Your task to perform on an android device: show emergency info Image 0: 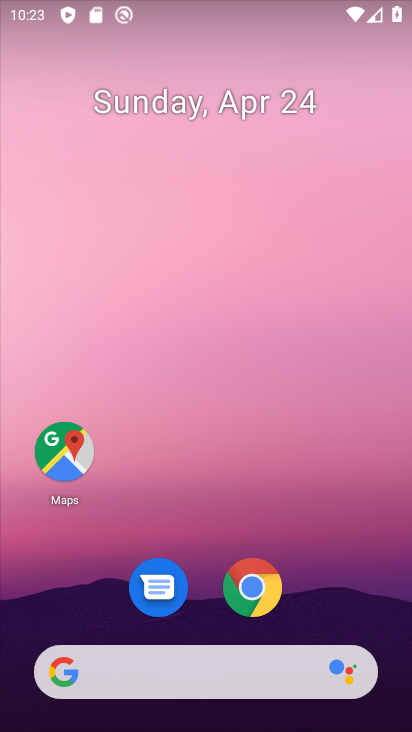
Step 0: drag from (356, 560) to (286, 45)
Your task to perform on an android device: show emergency info Image 1: 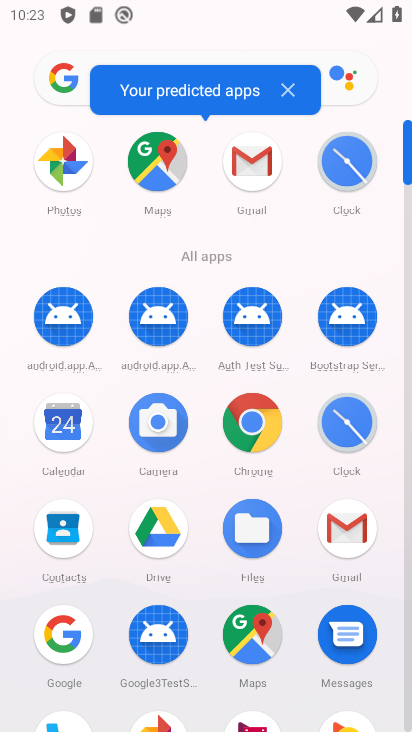
Step 1: drag from (372, 485) to (343, 192)
Your task to perform on an android device: show emergency info Image 2: 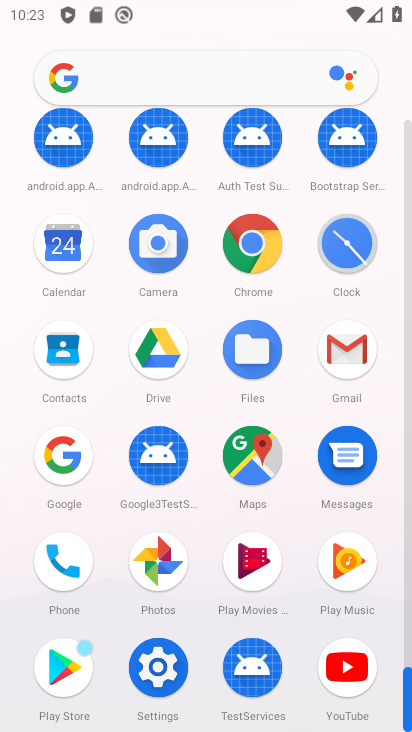
Step 2: click (153, 655)
Your task to perform on an android device: show emergency info Image 3: 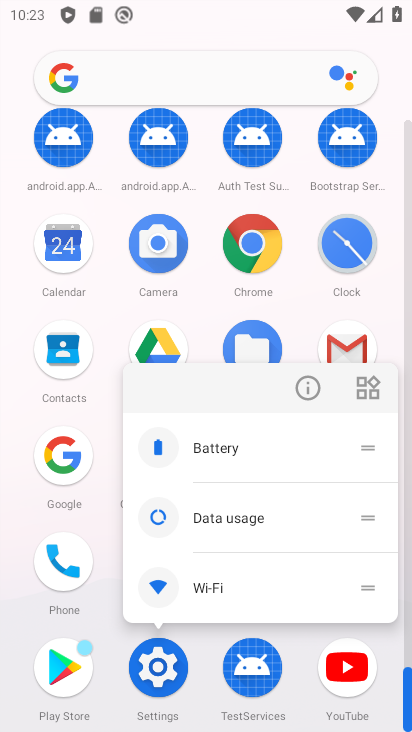
Step 3: click (169, 701)
Your task to perform on an android device: show emergency info Image 4: 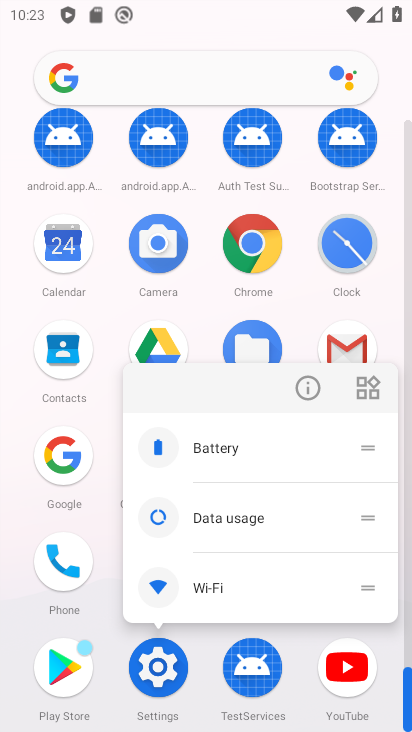
Step 4: click (158, 677)
Your task to perform on an android device: show emergency info Image 5: 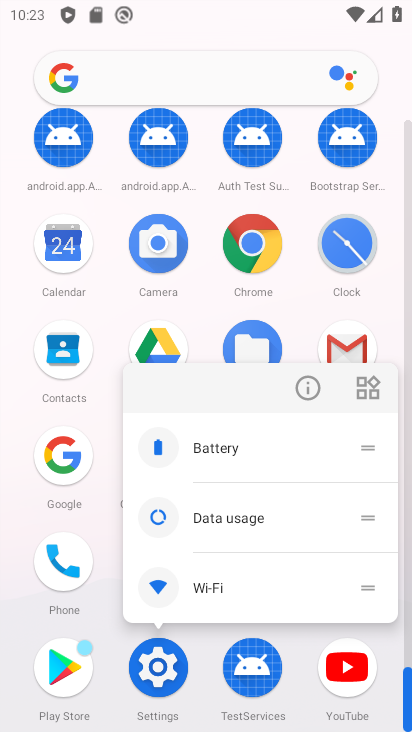
Step 5: click (158, 677)
Your task to perform on an android device: show emergency info Image 6: 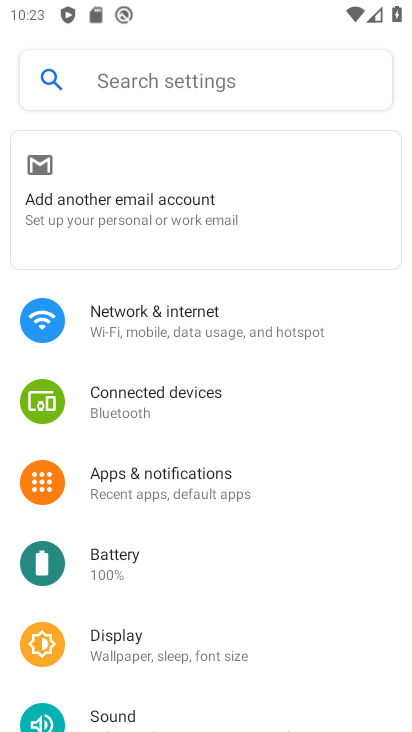
Step 6: drag from (343, 652) to (340, 284)
Your task to perform on an android device: show emergency info Image 7: 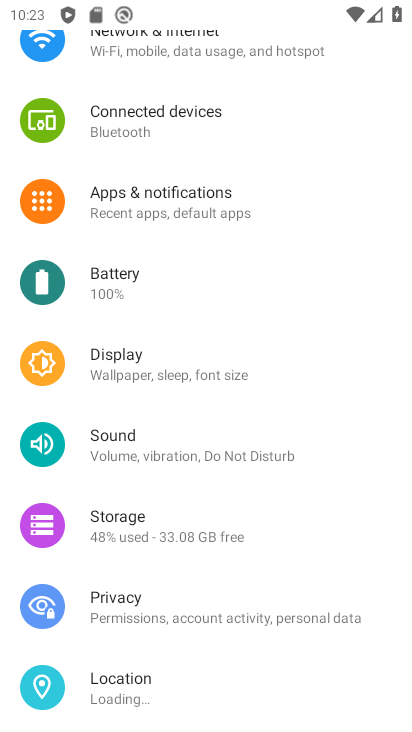
Step 7: drag from (373, 630) to (370, 239)
Your task to perform on an android device: show emergency info Image 8: 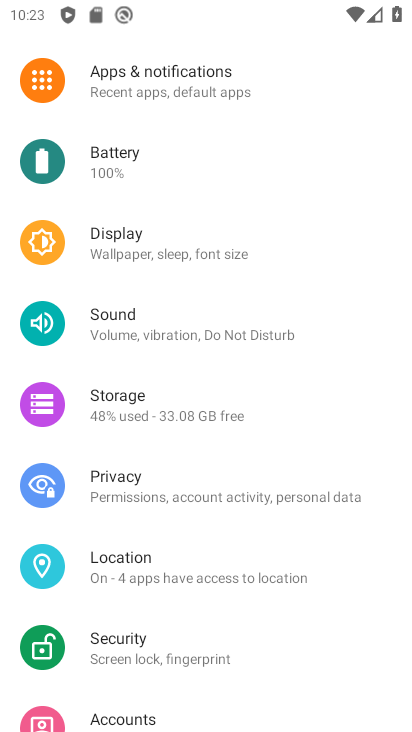
Step 8: drag from (342, 602) to (355, 296)
Your task to perform on an android device: show emergency info Image 9: 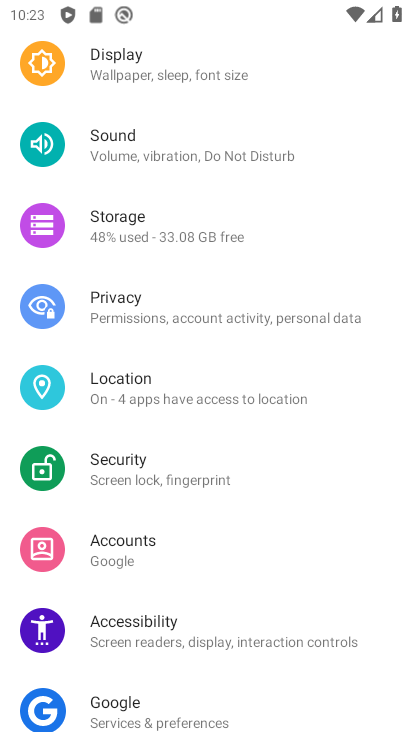
Step 9: drag from (355, 586) to (352, 243)
Your task to perform on an android device: show emergency info Image 10: 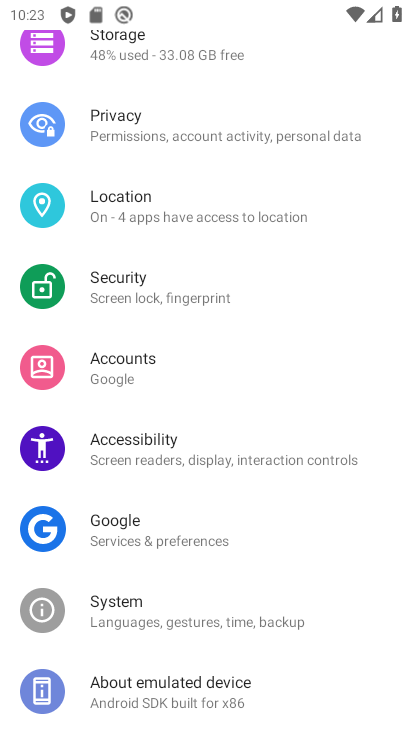
Step 10: click (245, 690)
Your task to perform on an android device: show emergency info Image 11: 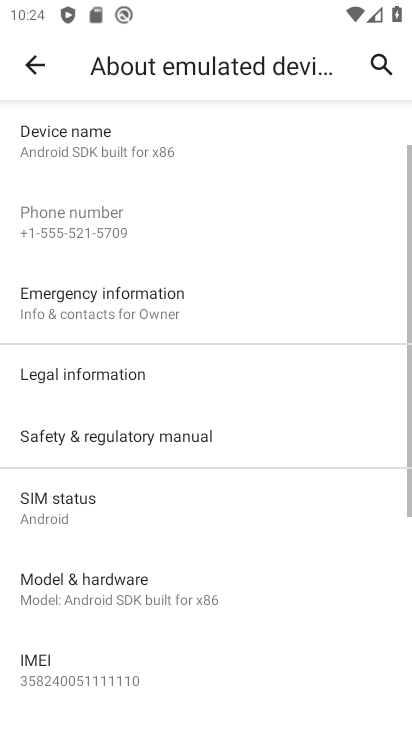
Step 11: click (104, 291)
Your task to perform on an android device: show emergency info Image 12: 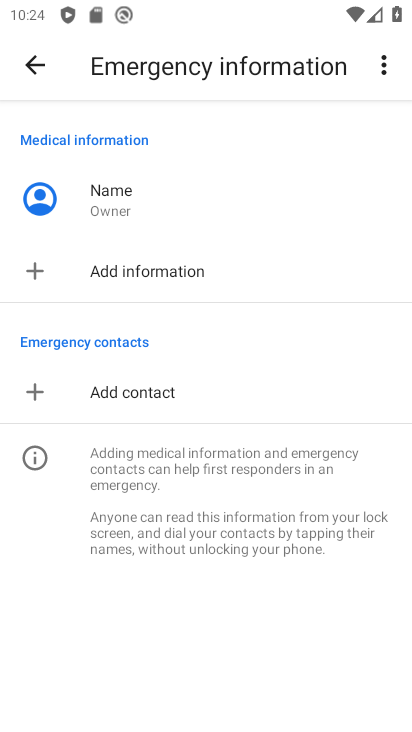
Step 12: task complete